Your task to perform on an android device: Go to Yahoo.com Image 0: 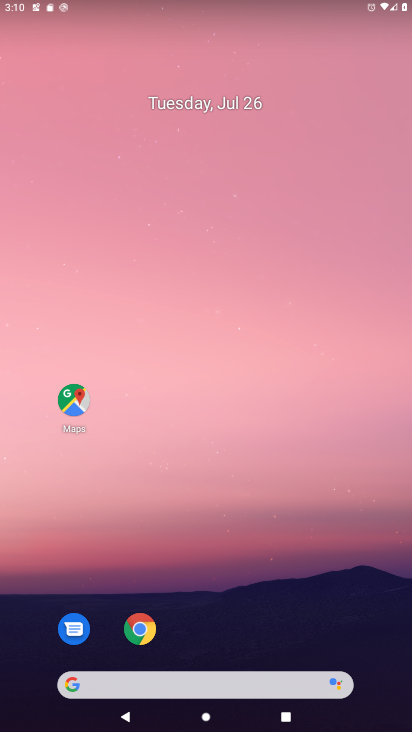
Step 0: click (135, 625)
Your task to perform on an android device: Go to Yahoo.com Image 1: 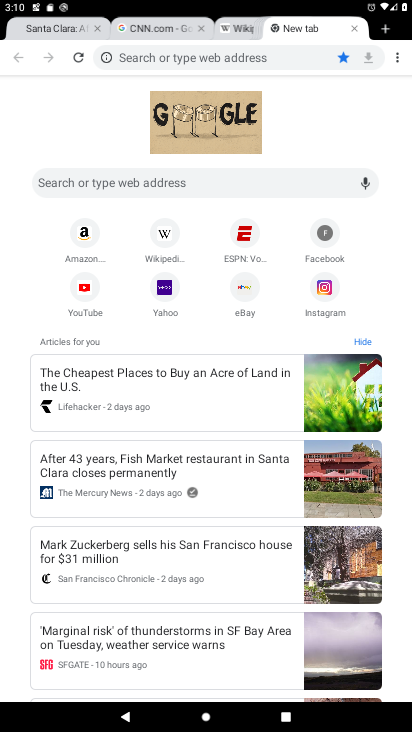
Step 1: click (390, 26)
Your task to perform on an android device: Go to Yahoo.com Image 2: 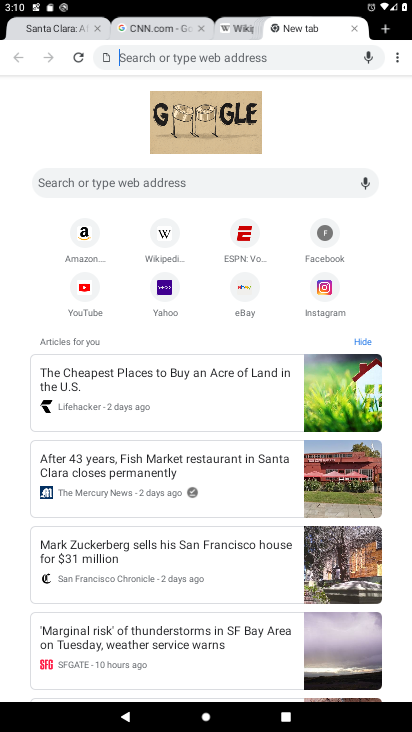
Step 2: click (165, 303)
Your task to perform on an android device: Go to Yahoo.com Image 3: 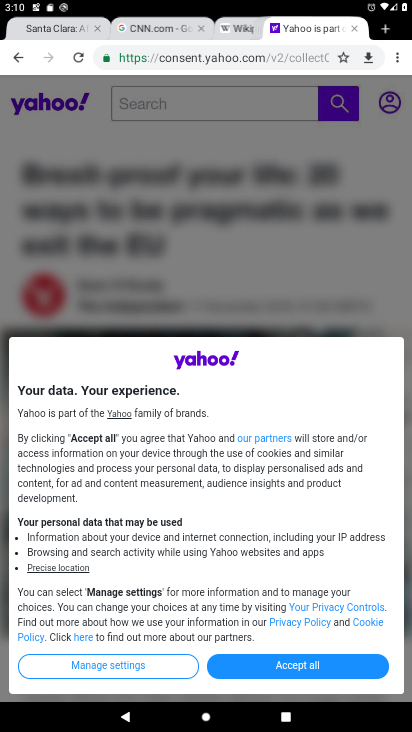
Step 3: task complete